Your task to perform on an android device: check android version Image 0: 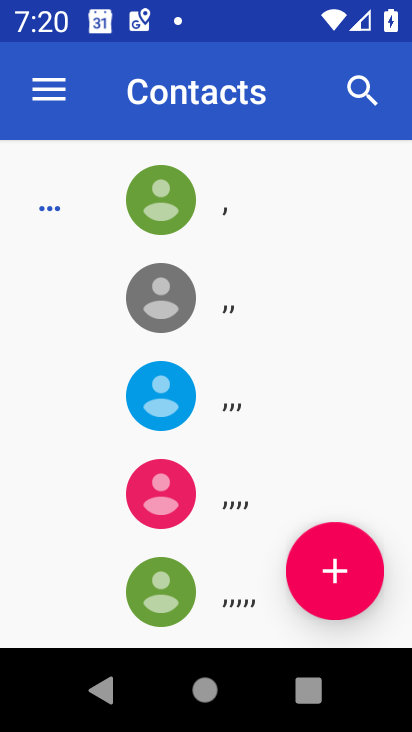
Step 0: press home button
Your task to perform on an android device: check android version Image 1: 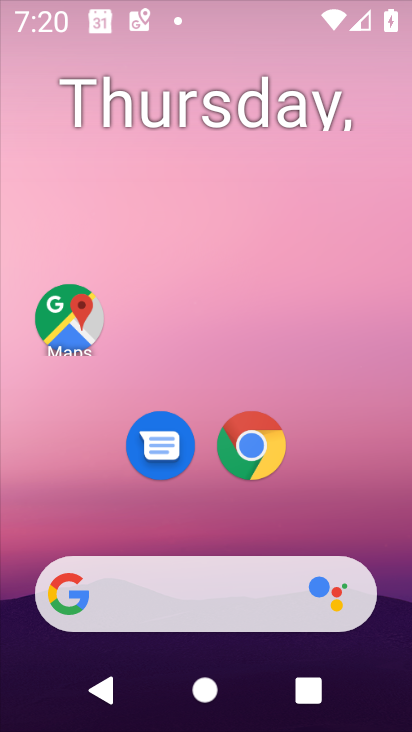
Step 1: drag from (390, 639) to (290, 22)
Your task to perform on an android device: check android version Image 2: 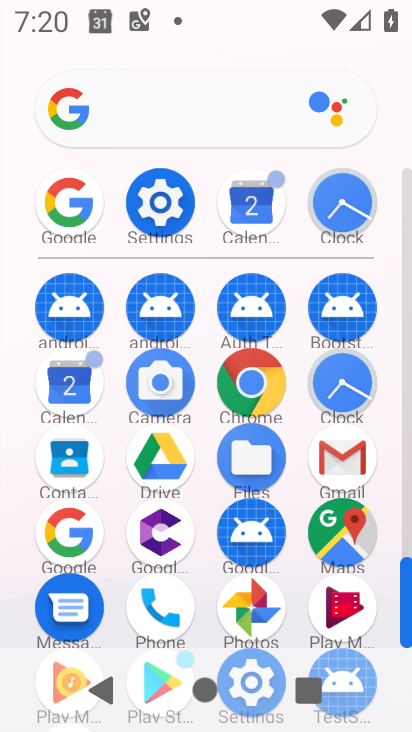
Step 2: click (144, 219)
Your task to perform on an android device: check android version Image 3: 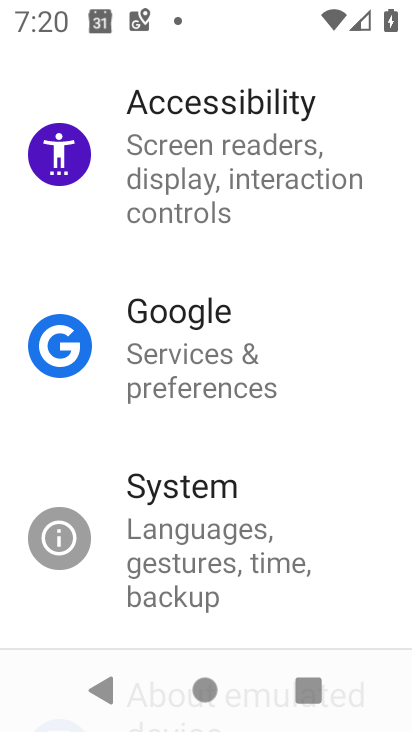
Step 3: drag from (204, 584) to (316, 5)
Your task to perform on an android device: check android version Image 4: 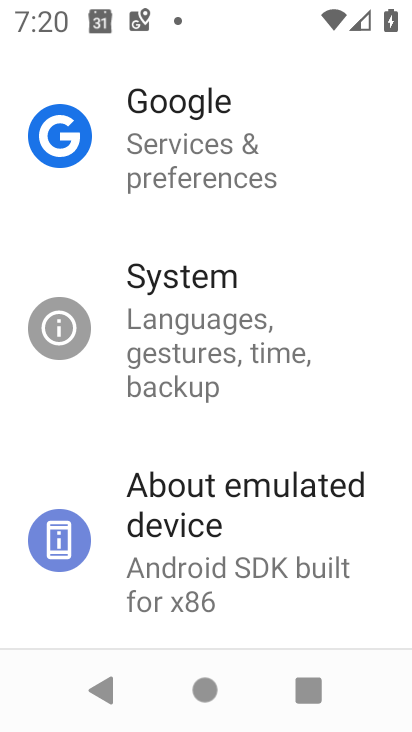
Step 4: click (261, 512)
Your task to perform on an android device: check android version Image 5: 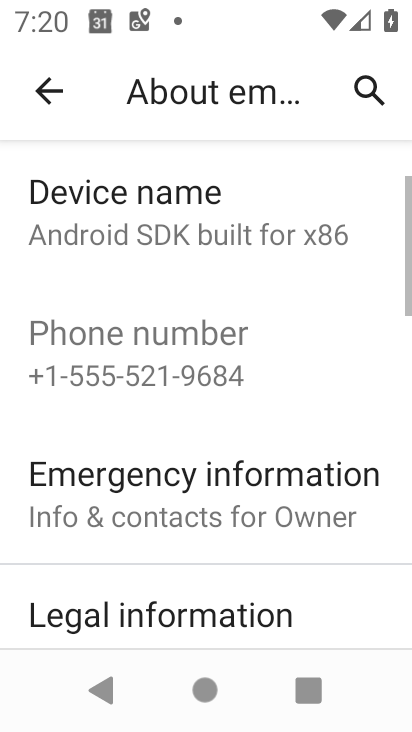
Step 5: drag from (168, 597) to (215, 110)
Your task to perform on an android device: check android version Image 6: 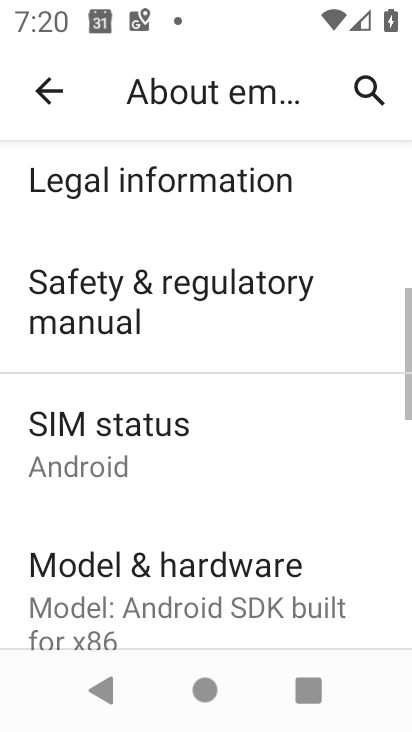
Step 6: drag from (160, 529) to (212, 101)
Your task to perform on an android device: check android version Image 7: 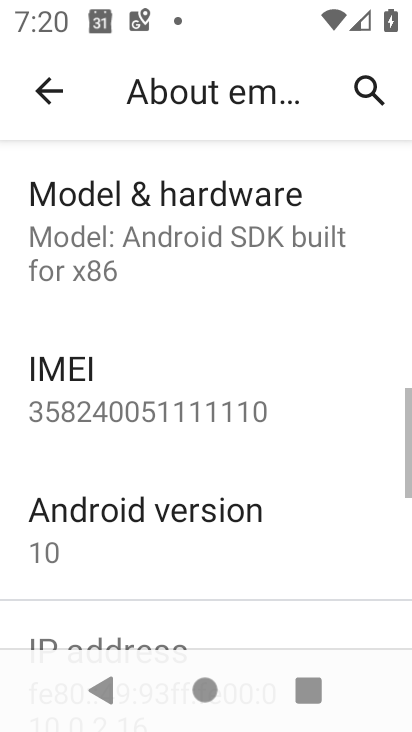
Step 7: click (209, 519)
Your task to perform on an android device: check android version Image 8: 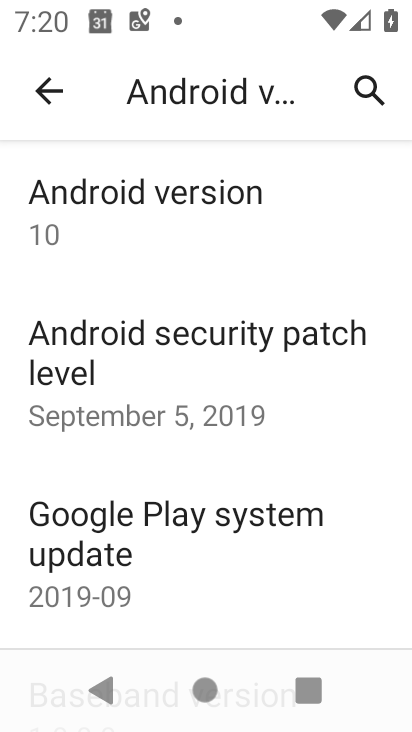
Step 8: task complete